Your task to perform on an android device: Is it going to rain today? Image 0: 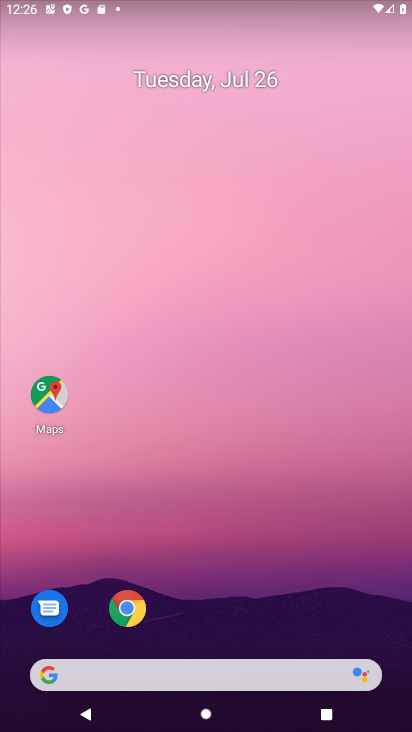
Step 0: click (168, 674)
Your task to perform on an android device: Is it going to rain today? Image 1: 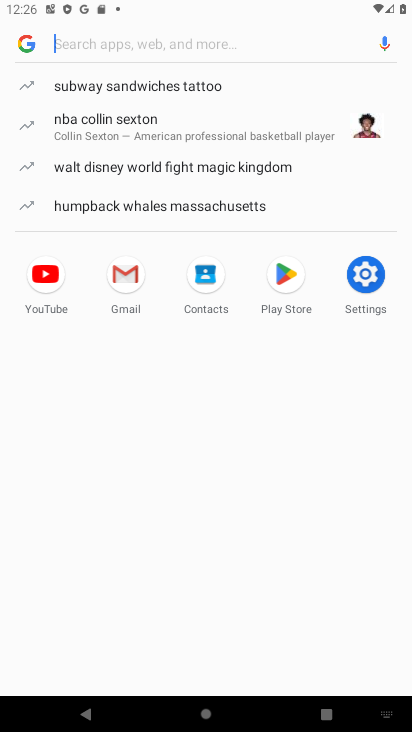
Step 1: type "weather"
Your task to perform on an android device: Is it going to rain today? Image 2: 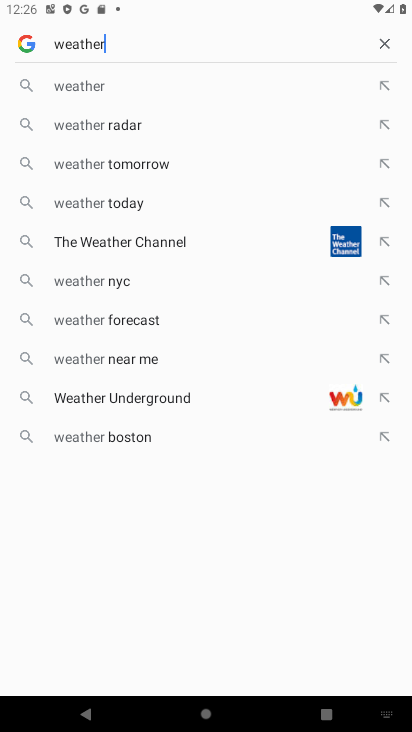
Step 2: click (272, 77)
Your task to perform on an android device: Is it going to rain today? Image 3: 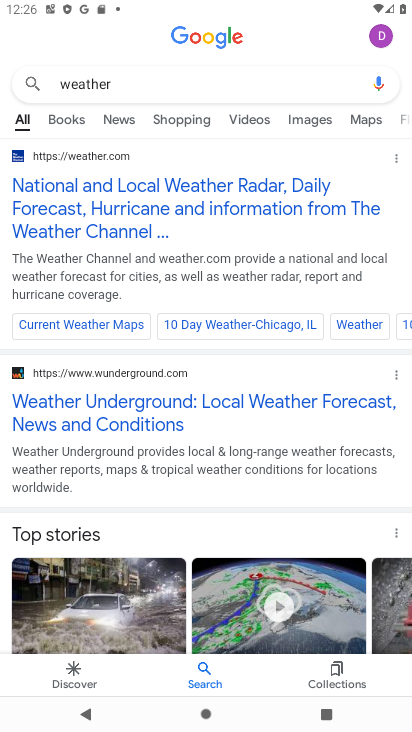
Step 3: task complete